Your task to perform on an android device: Show me the alarms in the clock app Image 0: 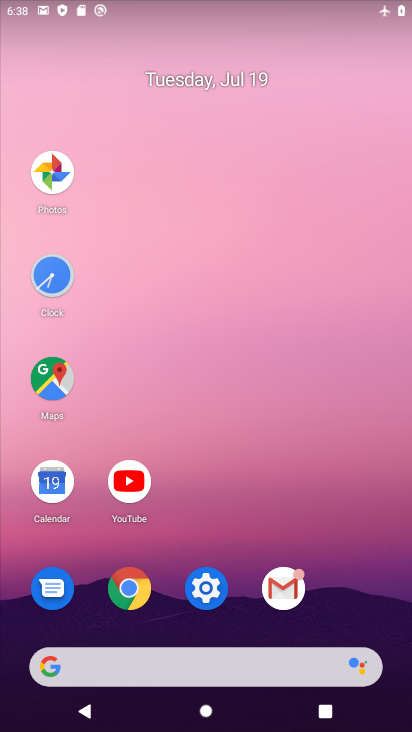
Step 0: click (201, 654)
Your task to perform on an android device: Show me the alarms in the clock app Image 1: 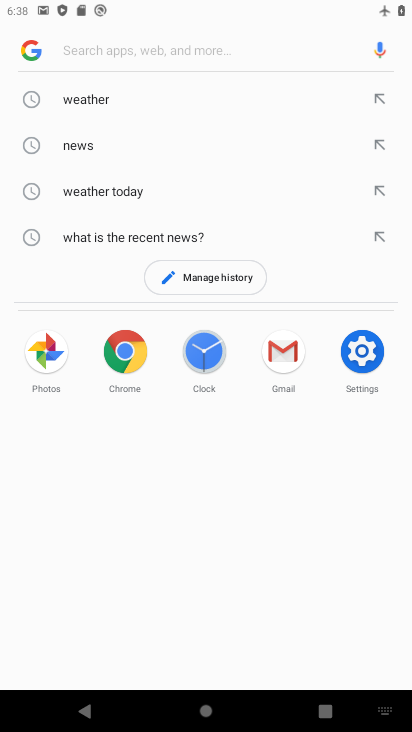
Step 1: press home button
Your task to perform on an android device: Show me the alarms in the clock app Image 2: 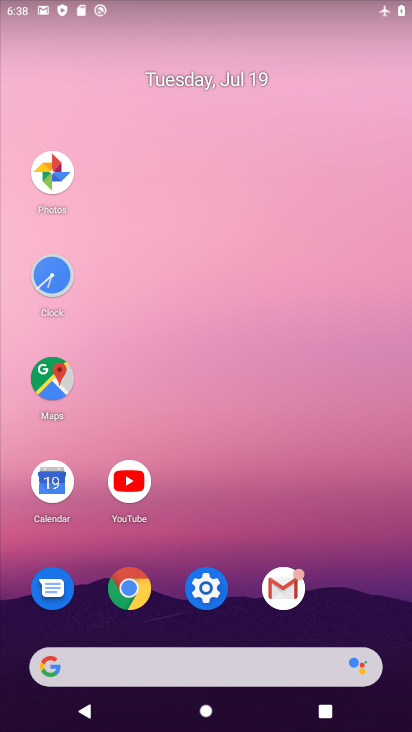
Step 2: click (50, 265)
Your task to perform on an android device: Show me the alarms in the clock app Image 3: 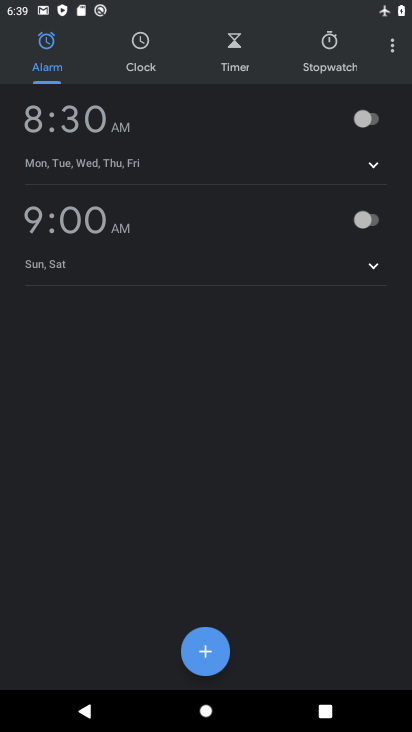
Step 3: click (44, 48)
Your task to perform on an android device: Show me the alarms in the clock app Image 4: 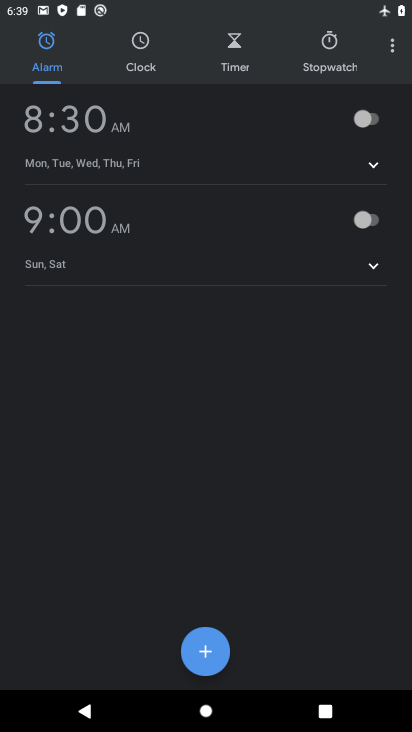
Step 4: task complete